Your task to perform on an android device: check battery use Image 0: 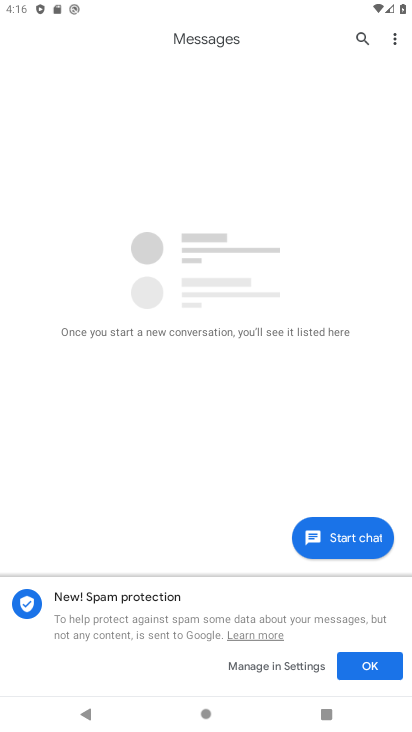
Step 0: press home button
Your task to perform on an android device: check battery use Image 1: 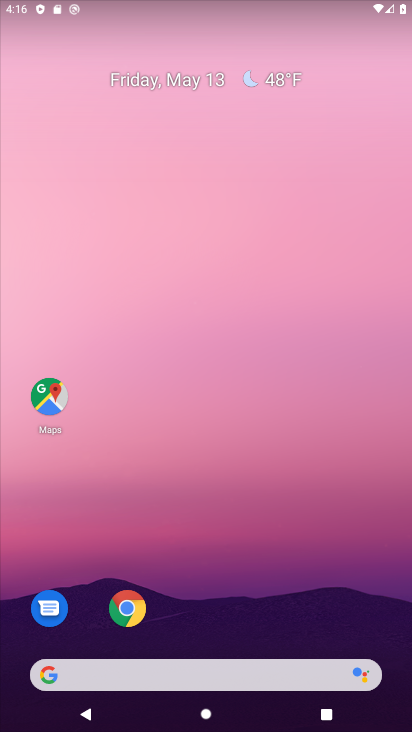
Step 1: drag from (226, 721) to (232, 156)
Your task to perform on an android device: check battery use Image 2: 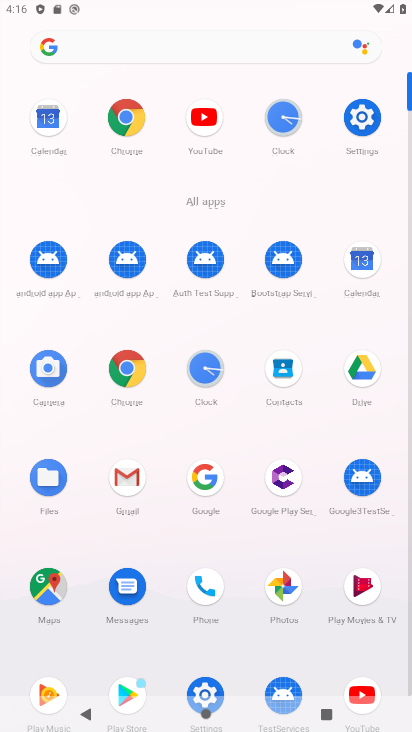
Step 2: click (365, 109)
Your task to perform on an android device: check battery use Image 3: 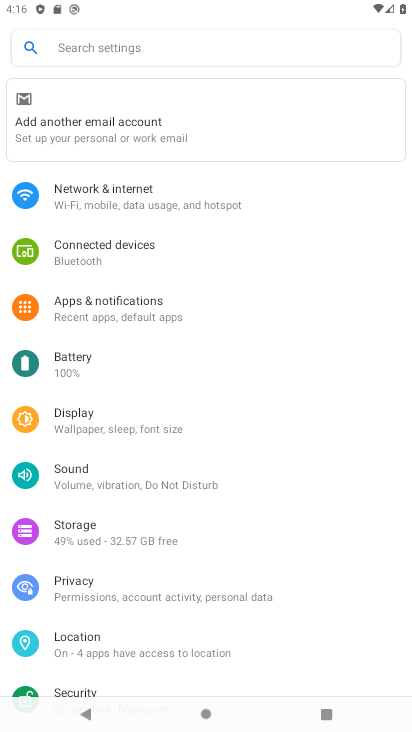
Step 3: click (72, 356)
Your task to perform on an android device: check battery use Image 4: 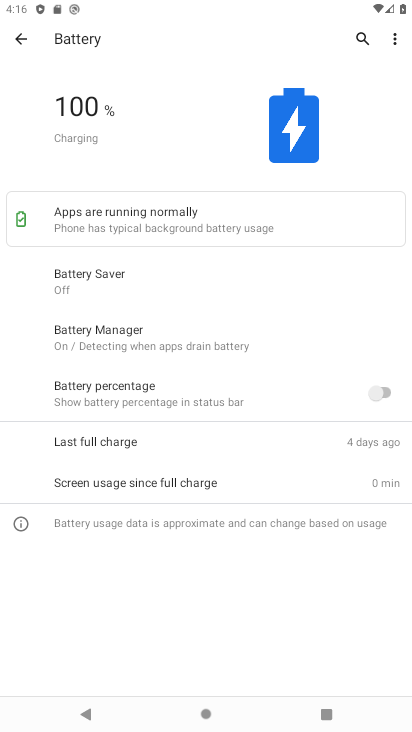
Step 4: task complete